Your task to perform on an android device: stop showing notifications on the lock screen Image 0: 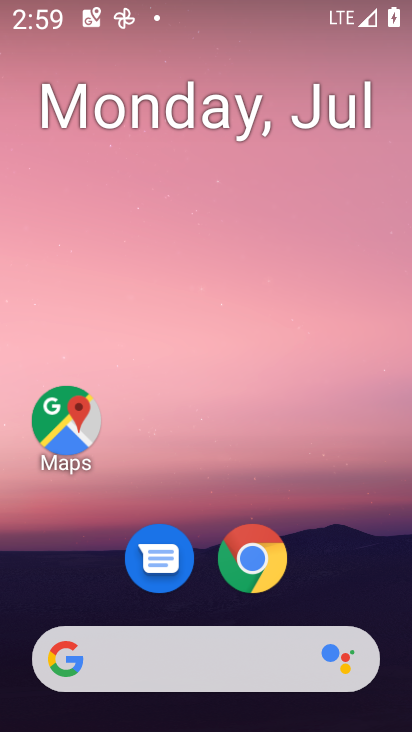
Step 0: press home button
Your task to perform on an android device: stop showing notifications on the lock screen Image 1: 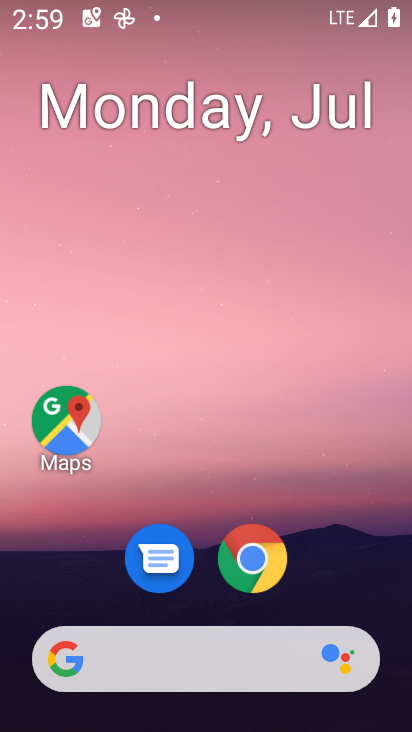
Step 1: drag from (375, 562) to (387, 142)
Your task to perform on an android device: stop showing notifications on the lock screen Image 2: 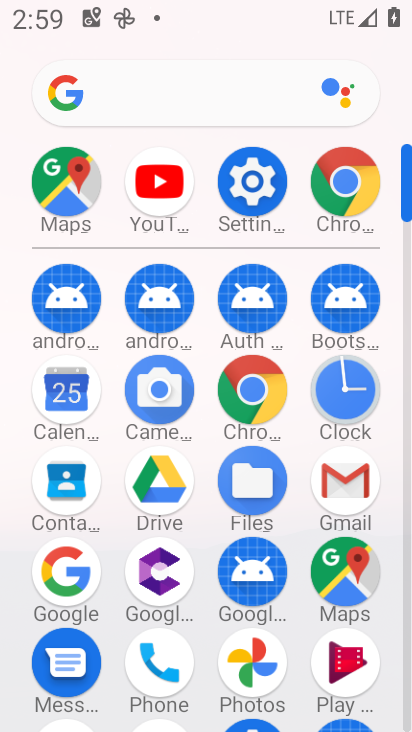
Step 2: click (257, 194)
Your task to perform on an android device: stop showing notifications on the lock screen Image 3: 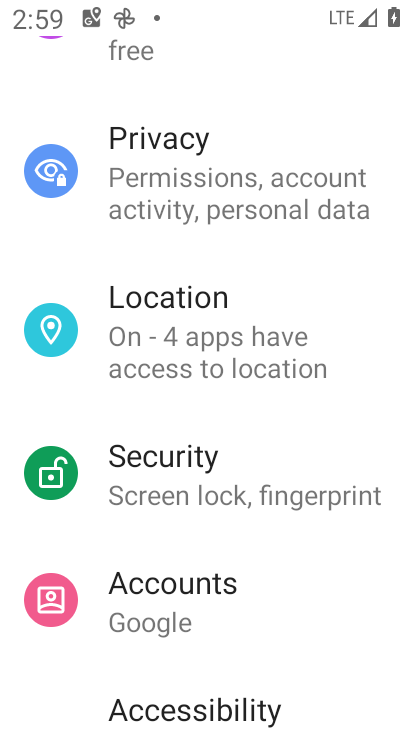
Step 3: drag from (370, 261) to (370, 356)
Your task to perform on an android device: stop showing notifications on the lock screen Image 4: 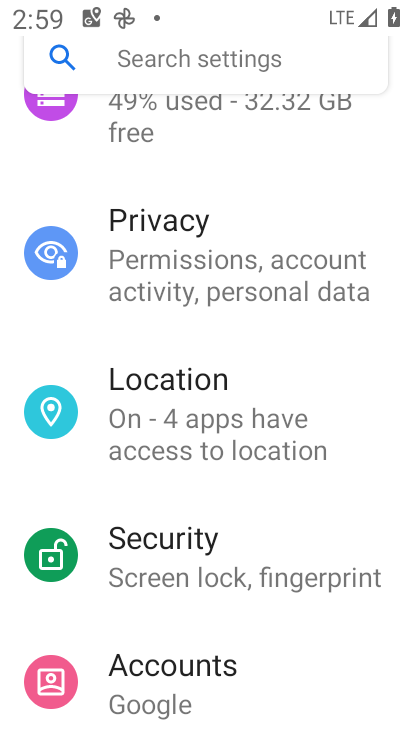
Step 4: drag from (376, 222) to (374, 354)
Your task to perform on an android device: stop showing notifications on the lock screen Image 5: 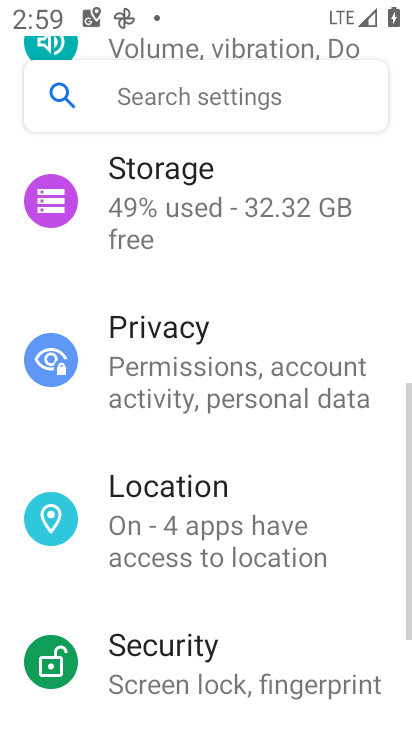
Step 5: drag from (379, 225) to (382, 349)
Your task to perform on an android device: stop showing notifications on the lock screen Image 6: 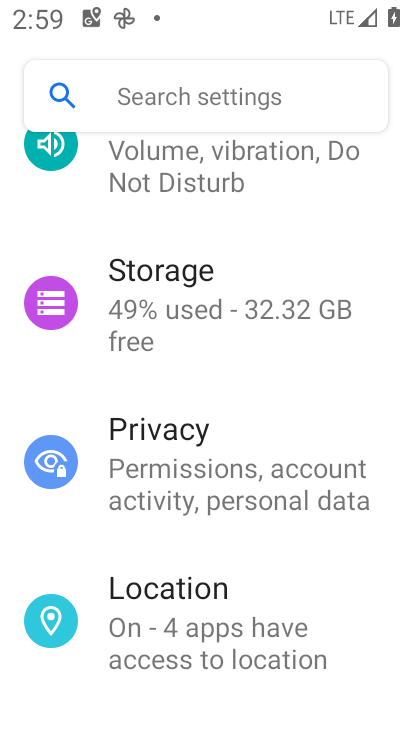
Step 6: drag from (382, 225) to (379, 350)
Your task to perform on an android device: stop showing notifications on the lock screen Image 7: 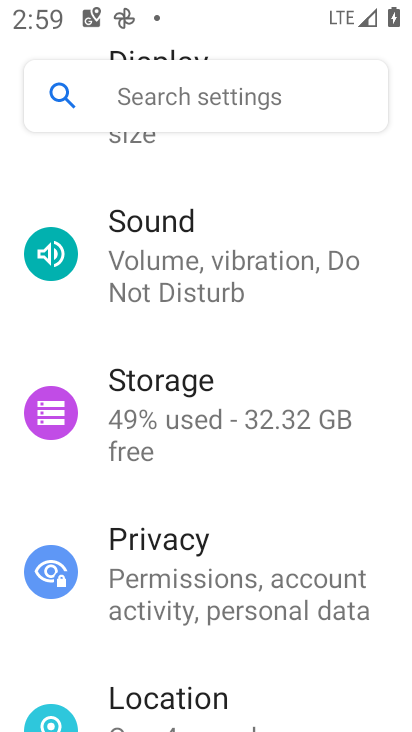
Step 7: drag from (370, 195) to (358, 408)
Your task to perform on an android device: stop showing notifications on the lock screen Image 8: 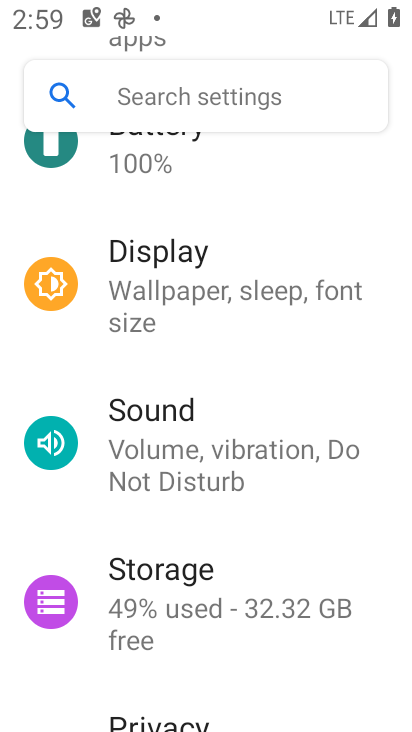
Step 8: drag from (358, 204) to (363, 368)
Your task to perform on an android device: stop showing notifications on the lock screen Image 9: 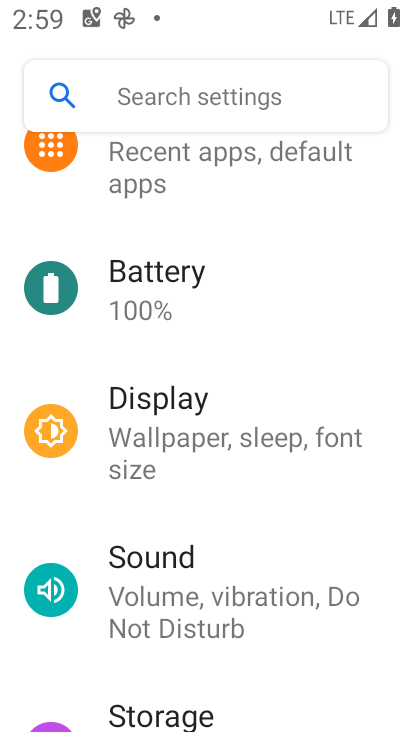
Step 9: drag from (364, 230) to (363, 364)
Your task to perform on an android device: stop showing notifications on the lock screen Image 10: 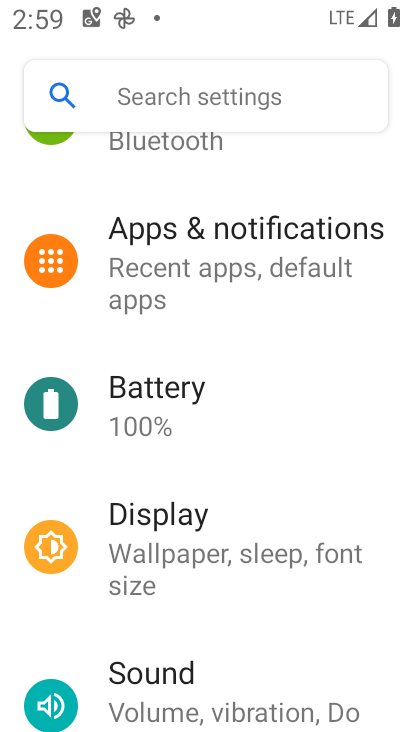
Step 10: drag from (379, 178) to (367, 365)
Your task to perform on an android device: stop showing notifications on the lock screen Image 11: 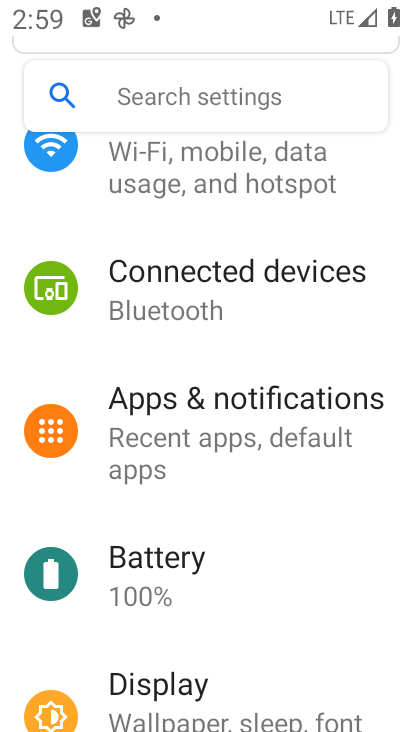
Step 11: drag from (385, 204) to (370, 411)
Your task to perform on an android device: stop showing notifications on the lock screen Image 12: 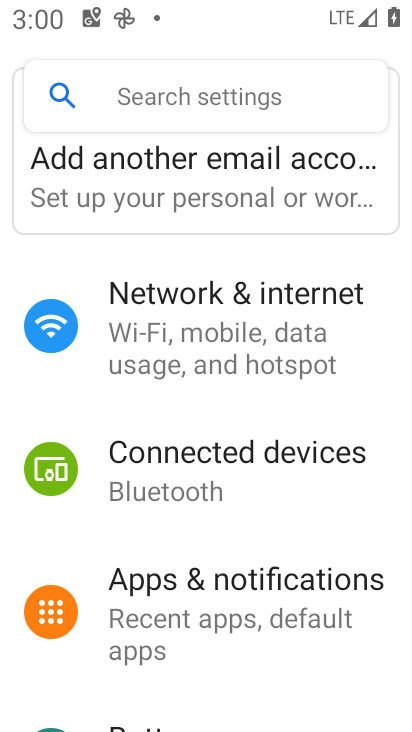
Step 12: click (324, 581)
Your task to perform on an android device: stop showing notifications on the lock screen Image 13: 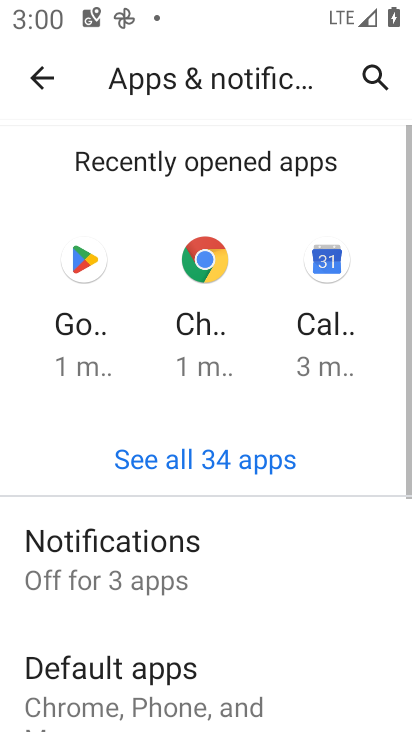
Step 13: click (235, 571)
Your task to perform on an android device: stop showing notifications on the lock screen Image 14: 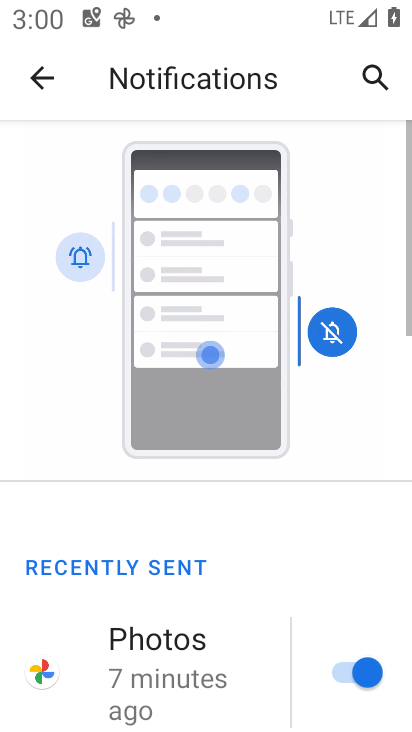
Step 14: drag from (343, 546) to (363, 455)
Your task to perform on an android device: stop showing notifications on the lock screen Image 15: 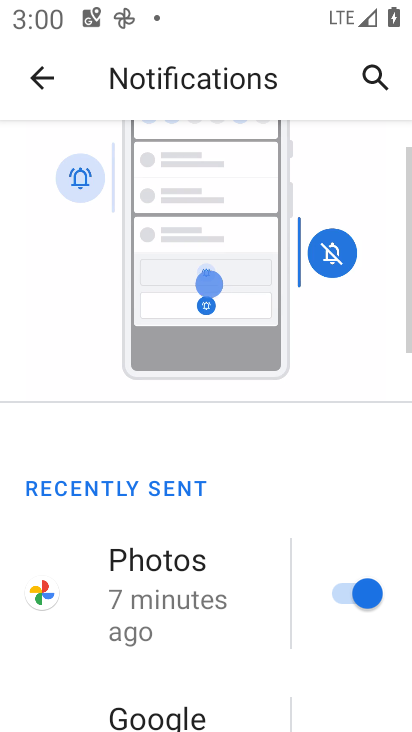
Step 15: drag from (325, 530) to (327, 410)
Your task to perform on an android device: stop showing notifications on the lock screen Image 16: 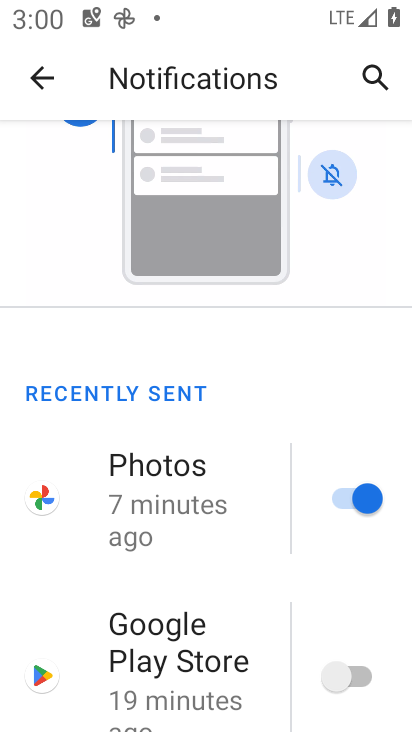
Step 16: drag from (301, 539) to (302, 448)
Your task to perform on an android device: stop showing notifications on the lock screen Image 17: 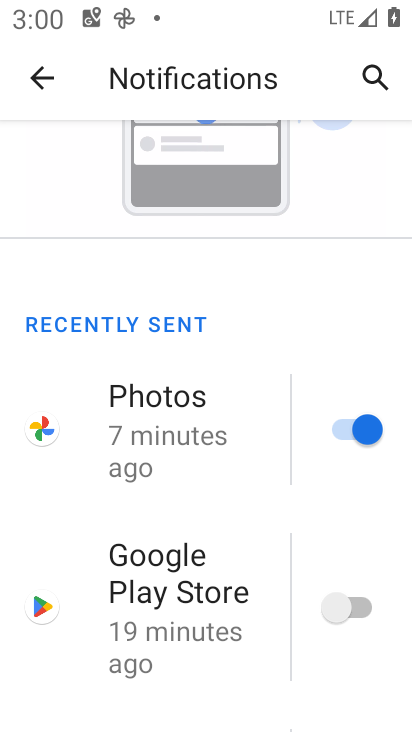
Step 17: drag from (259, 551) to (248, 421)
Your task to perform on an android device: stop showing notifications on the lock screen Image 18: 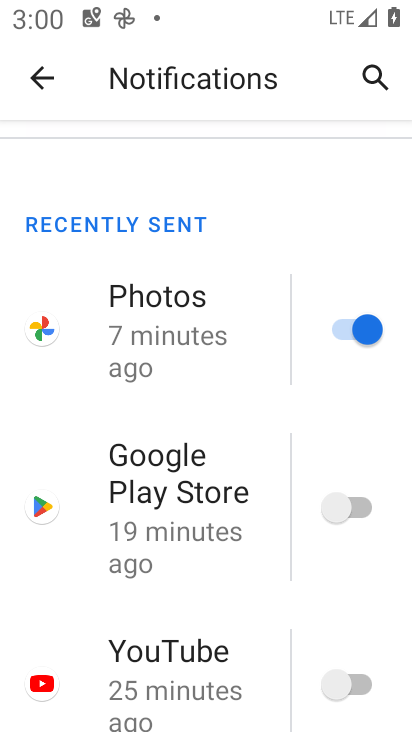
Step 18: drag from (243, 522) to (242, 442)
Your task to perform on an android device: stop showing notifications on the lock screen Image 19: 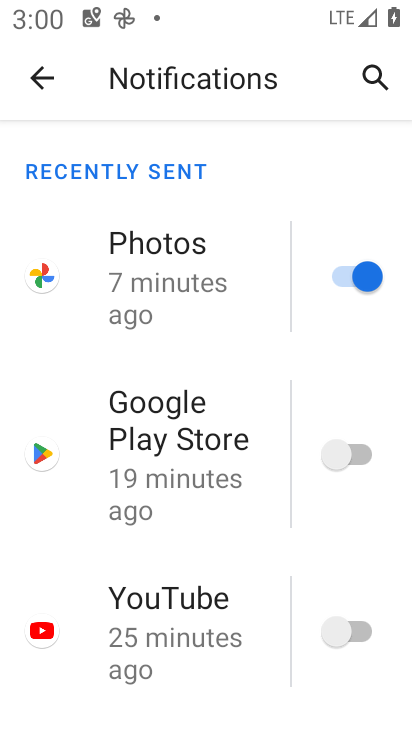
Step 19: drag from (241, 626) to (242, 468)
Your task to perform on an android device: stop showing notifications on the lock screen Image 20: 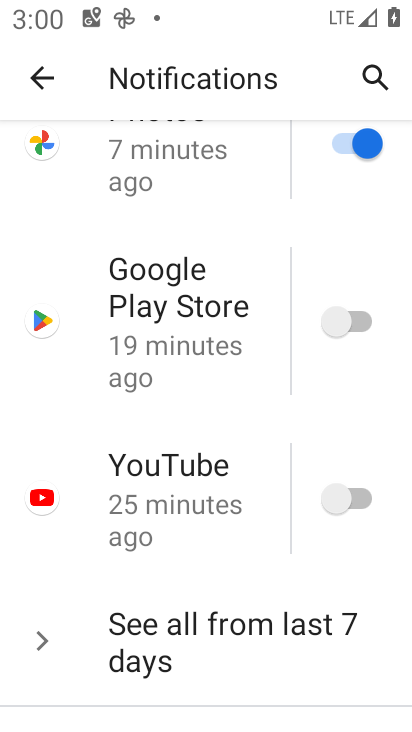
Step 20: drag from (249, 582) to (236, 390)
Your task to perform on an android device: stop showing notifications on the lock screen Image 21: 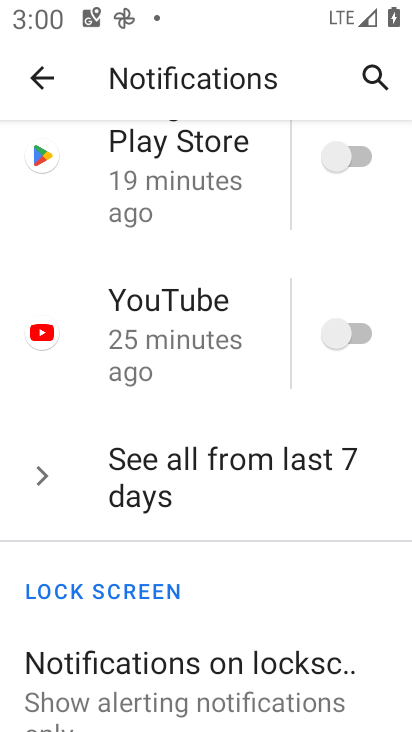
Step 21: drag from (244, 617) to (250, 459)
Your task to perform on an android device: stop showing notifications on the lock screen Image 22: 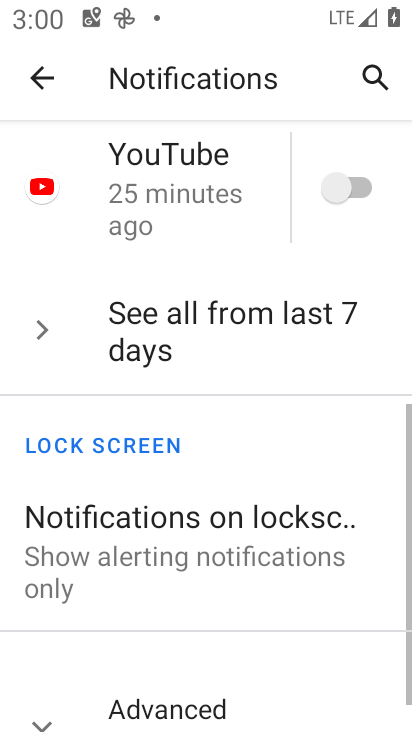
Step 22: click (239, 578)
Your task to perform on an android device: stop showing notifications on the lock screen Image 23: 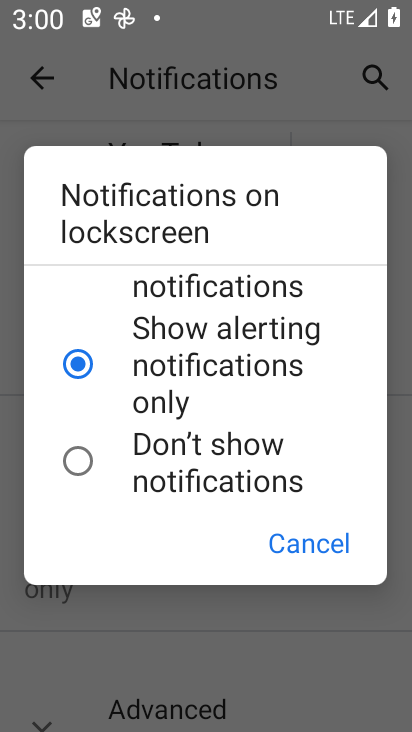
Step 23: click (182, 467)
Your task to perform on an android device: stop showing notifications on the lock screen Image 24: 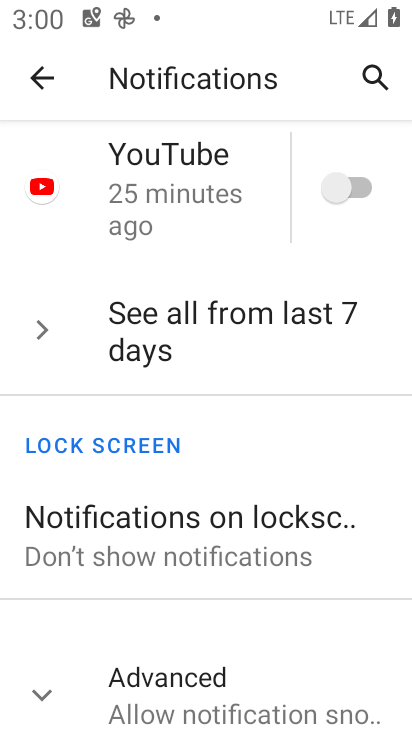
Step 24: task complete